Your task to perform on an android device: turn on airplane mode Image 0: 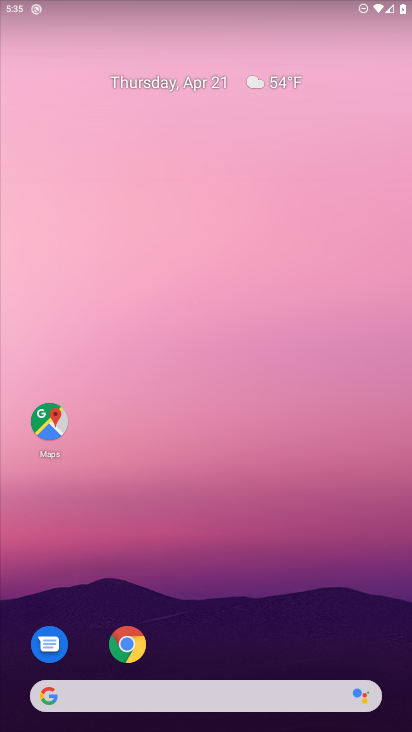
Step 0: drag from (254, 682) to (320, 320)
Your task to perform on an android device: turn on airplane mode Image 1: 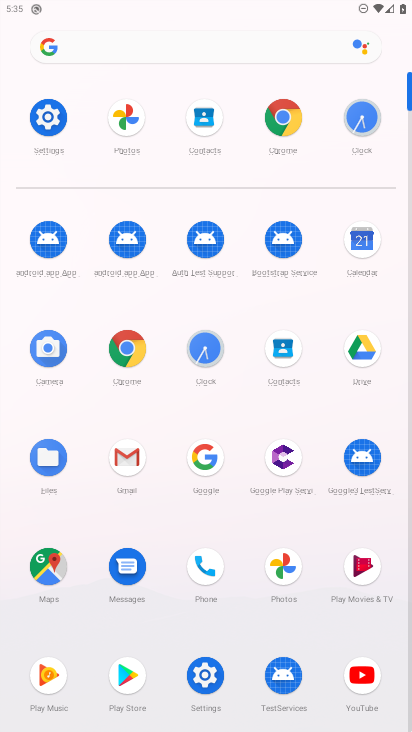
Step 1: click (43, 114)
Your task to perform on an android device: turn on airplane mode Image 2: 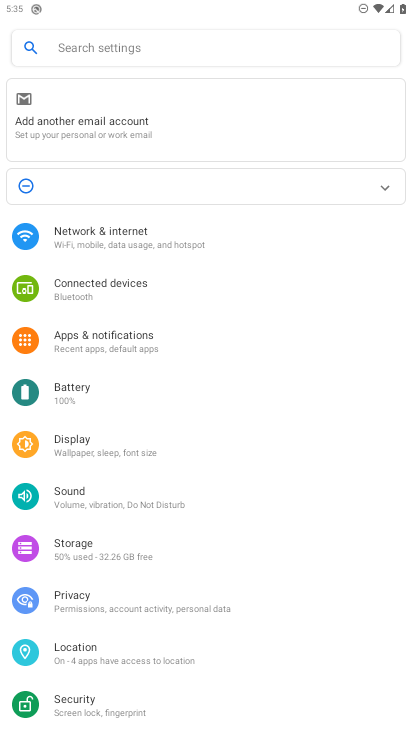
Step 2: click (91, 245)
Your task to perform on an android device: turn on airplane mode Image 3: 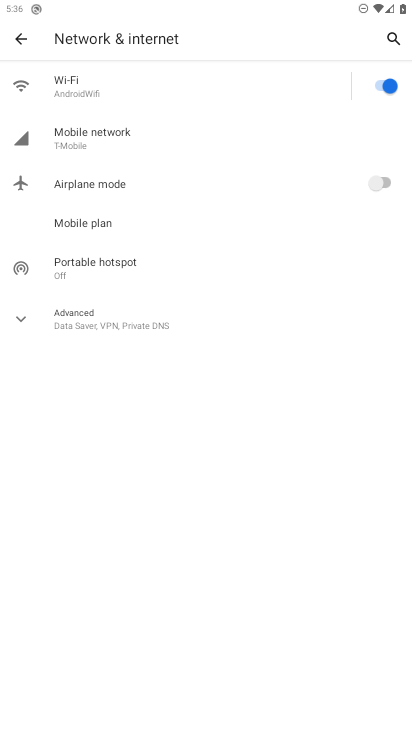
Step 3: click (388, 179)
Your task to perform on an android device: turn on airplane mode Image 4: 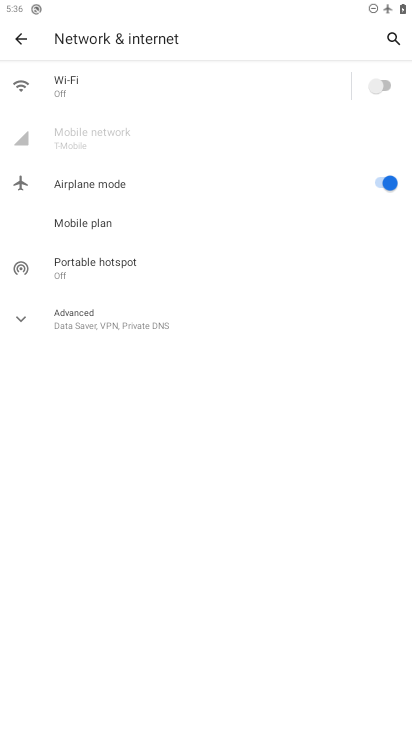
Step 4: task complete